Your task to perform on an android device: See recent photos Image 0: 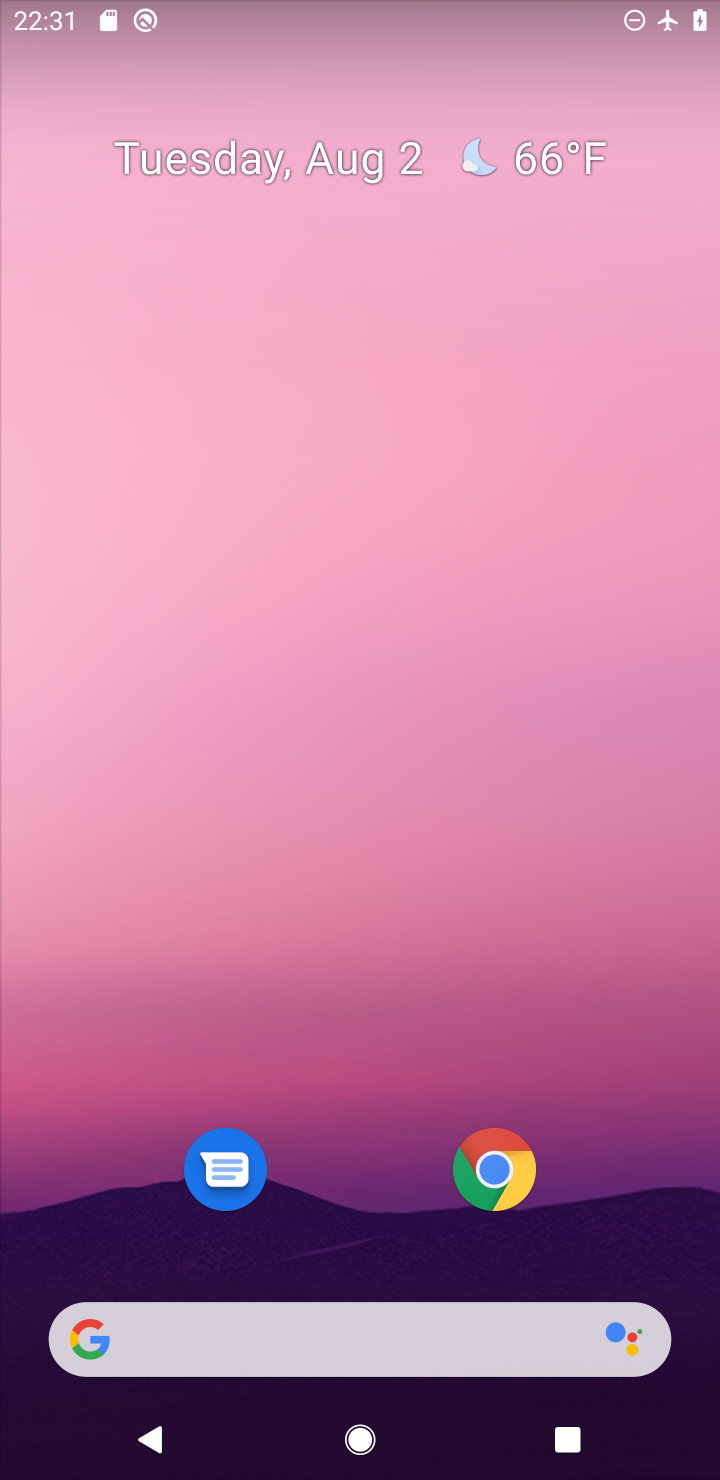
Step 0: drag from (348, 1210) to (348, 257)
Your task to perform on an android device: See recent photos Image 1: 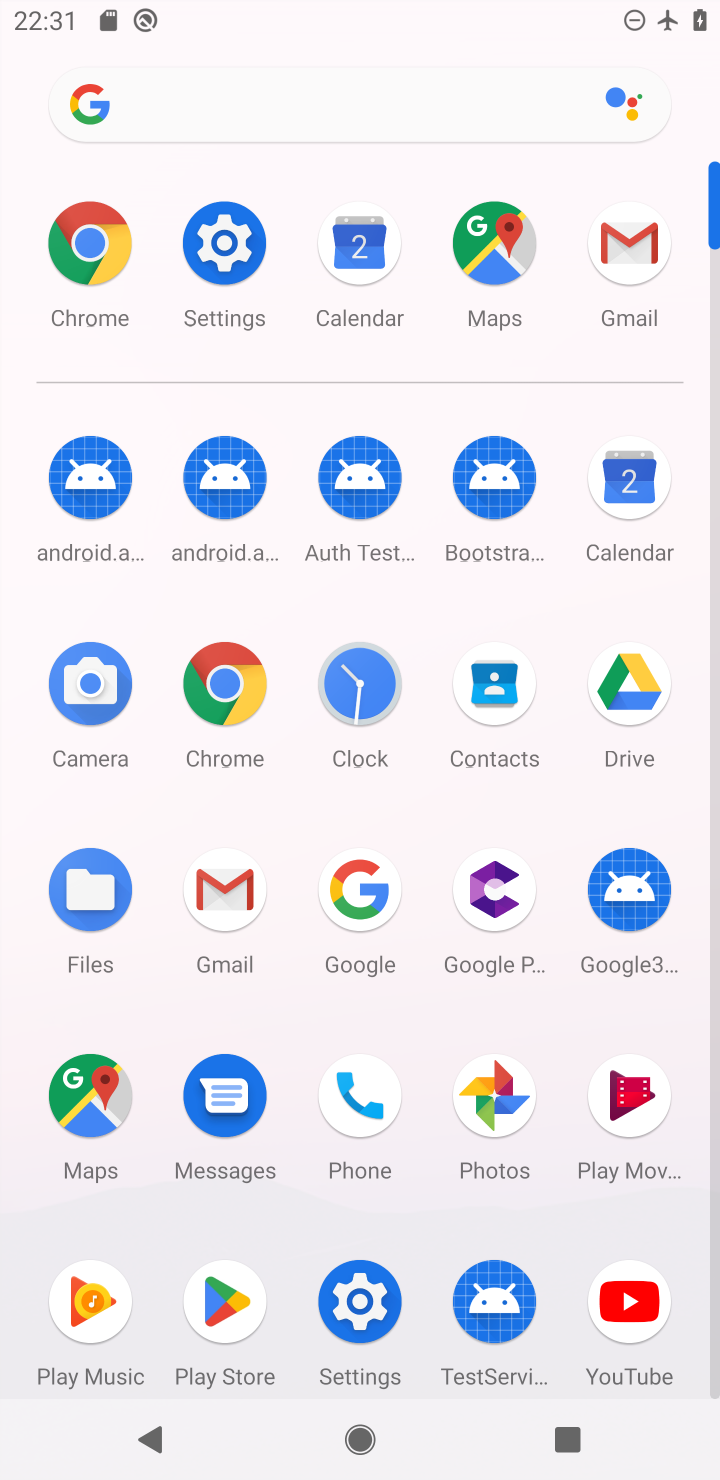
Step 1: click (488, 1099)
Your task to perform on an android device: See recent photos Image 2: 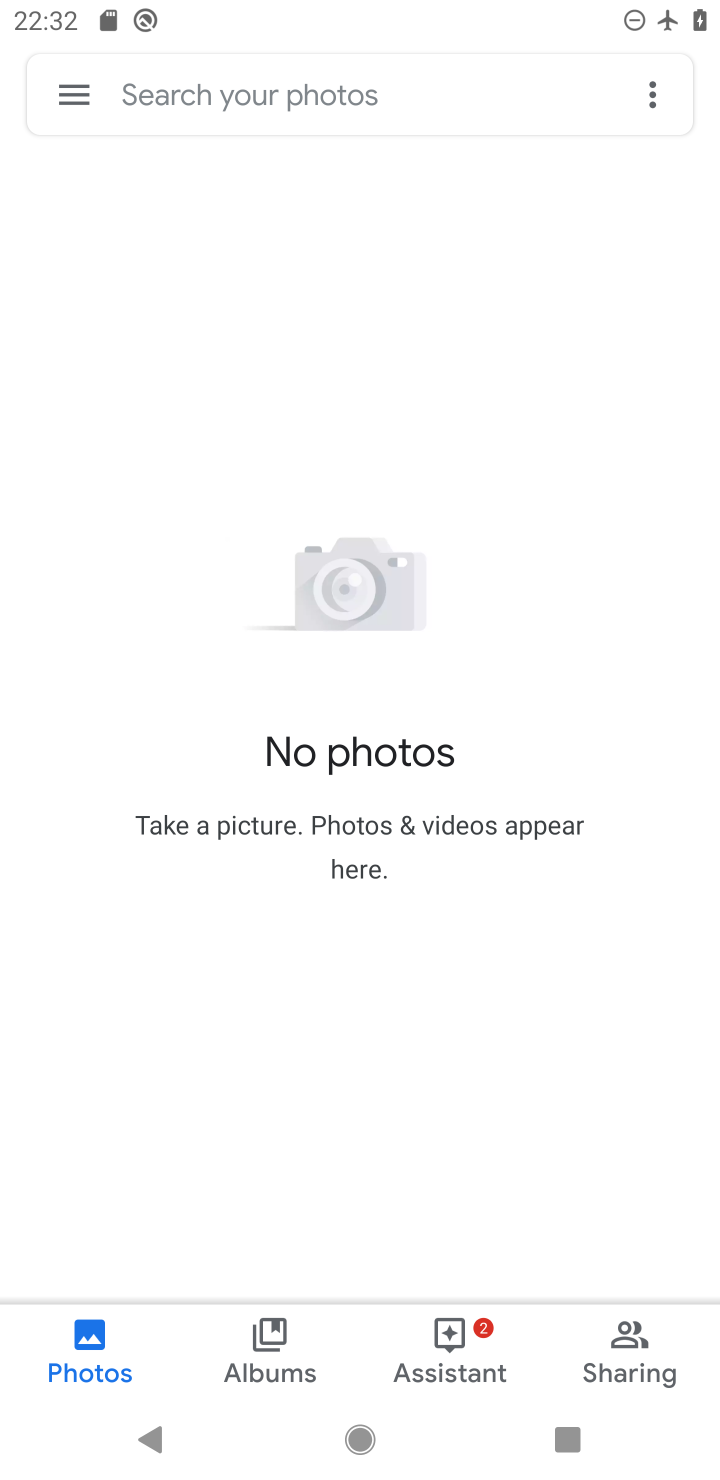
Step 2: task complete